Your task to perform on an android device: Go to Amazon Image 0: 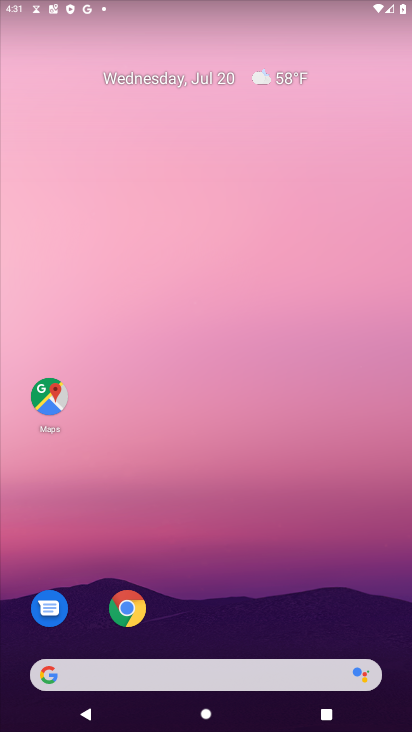
Step 0: click (127, 613)
Your task to perform on an android device: Go to Amazon Image 1: 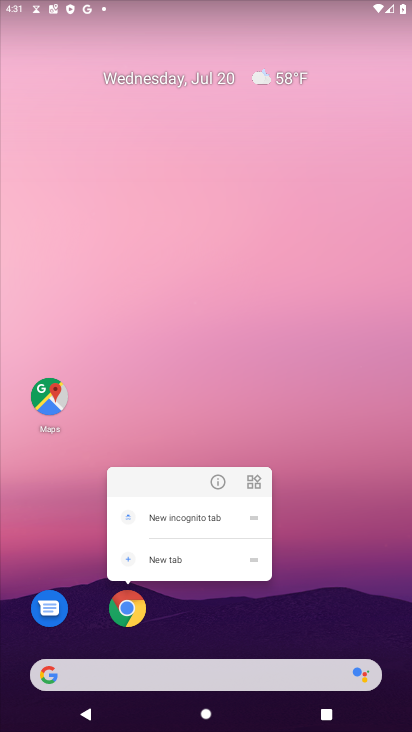
Step 1: click (120, 613)
Your task to perform on an android device: Go to Amazon Image 2: 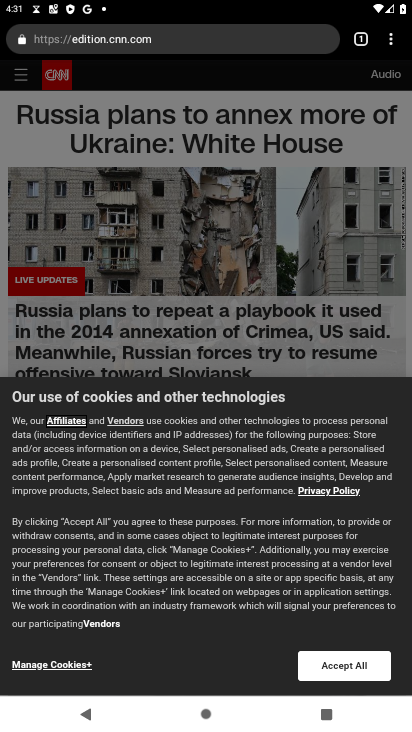
Step 2: click (136, 36)
Your task to perform on an android device: Go to Amazon Image 3: 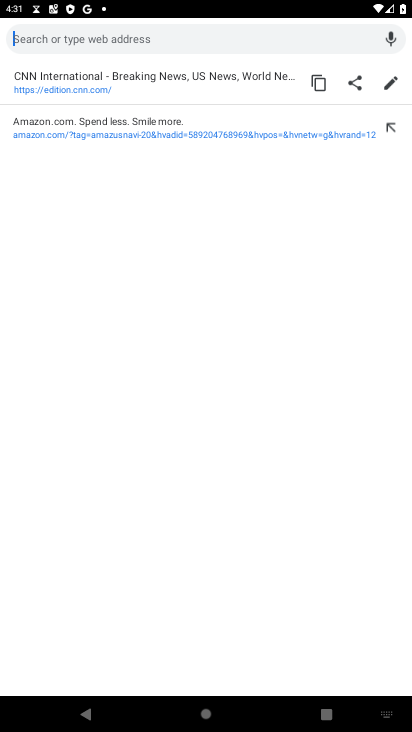
Step 3: type "Amazon"
Your task to perform on an android device: Go to Amazon Image 4: 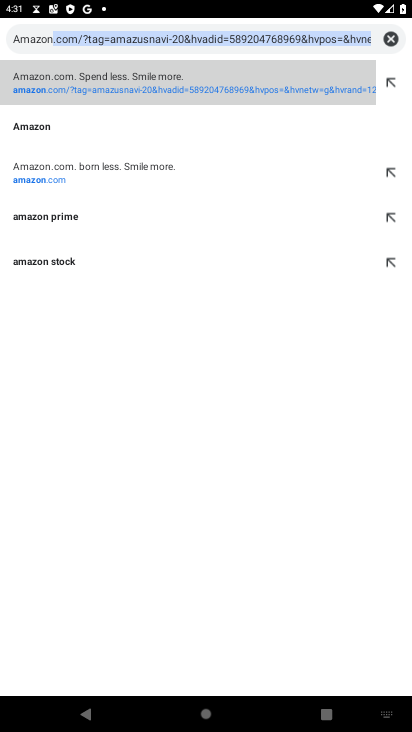
Step 4: click (47, 75)
Your task to perform on an android device: Go to Amazon Image 5: 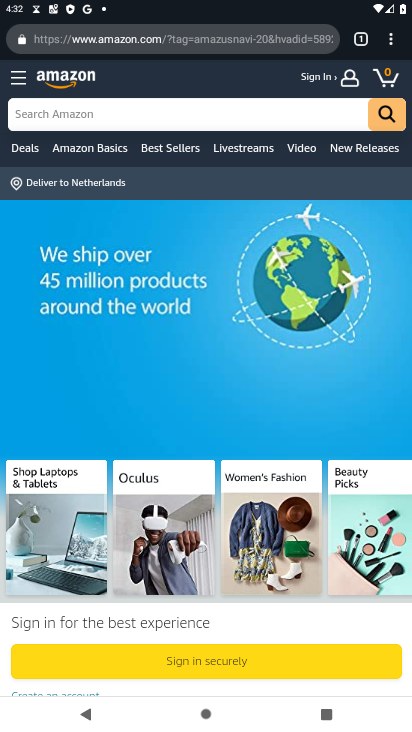
Step 5: task complete